Your task to perform on an android device: Do I have any events today? Image 0: 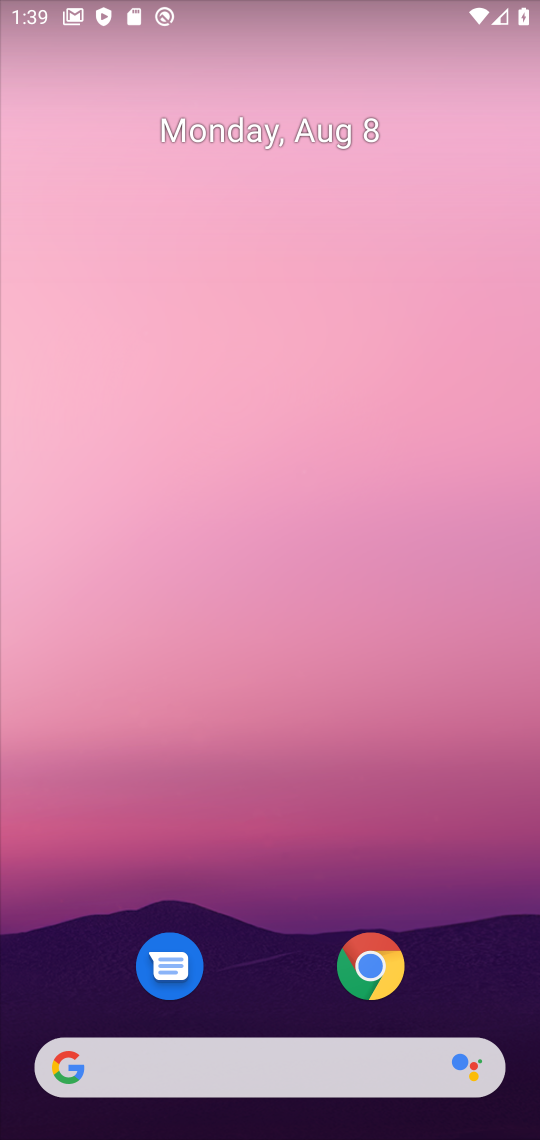
Step 0: drag from (278, 949) to (192, 307)
Your task to perform on an android device: Do I have any events today? Image 1: 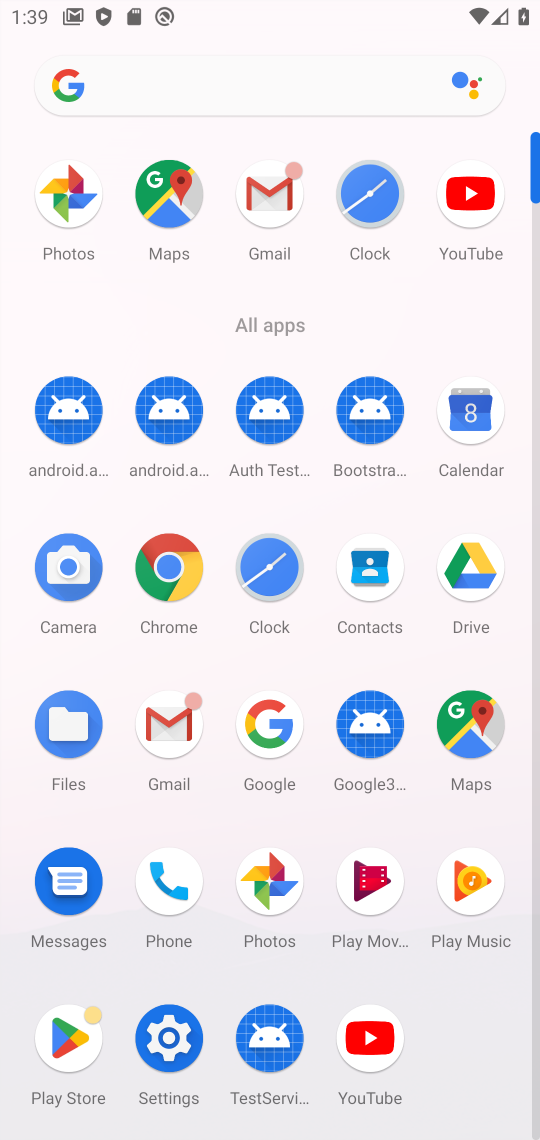
Step 1: click (466, 427)
Your task to perform on an android device: Do I have any events today? Image 2: 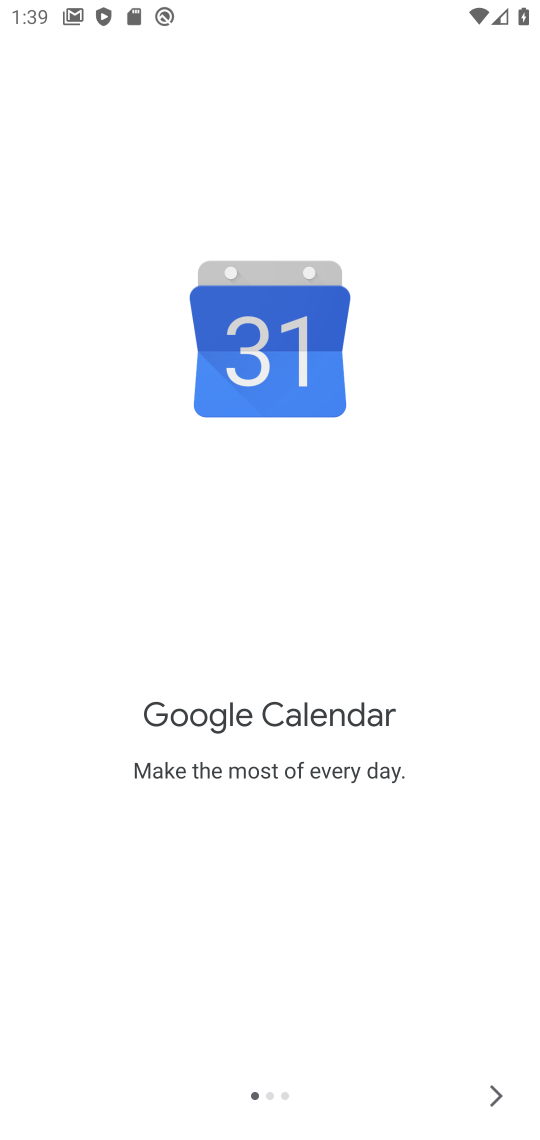
Step 2: click (499, 1087)
Your task to perform on an android device: Do I have any events today? Image 3: 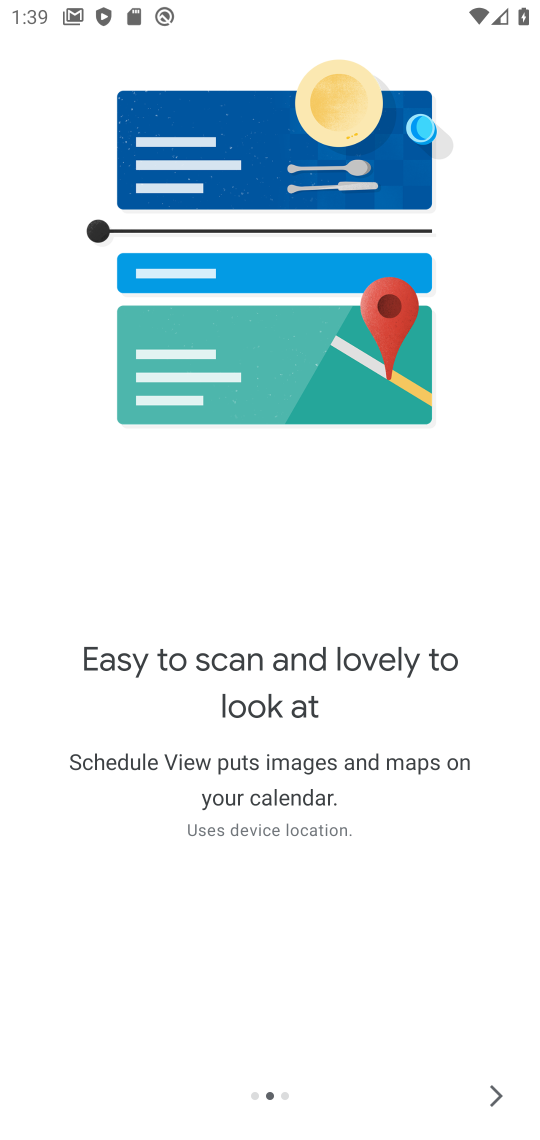
Step 3: click (499, 1087)
Your task to perform on an android device: Do I have any events today? Image 4: 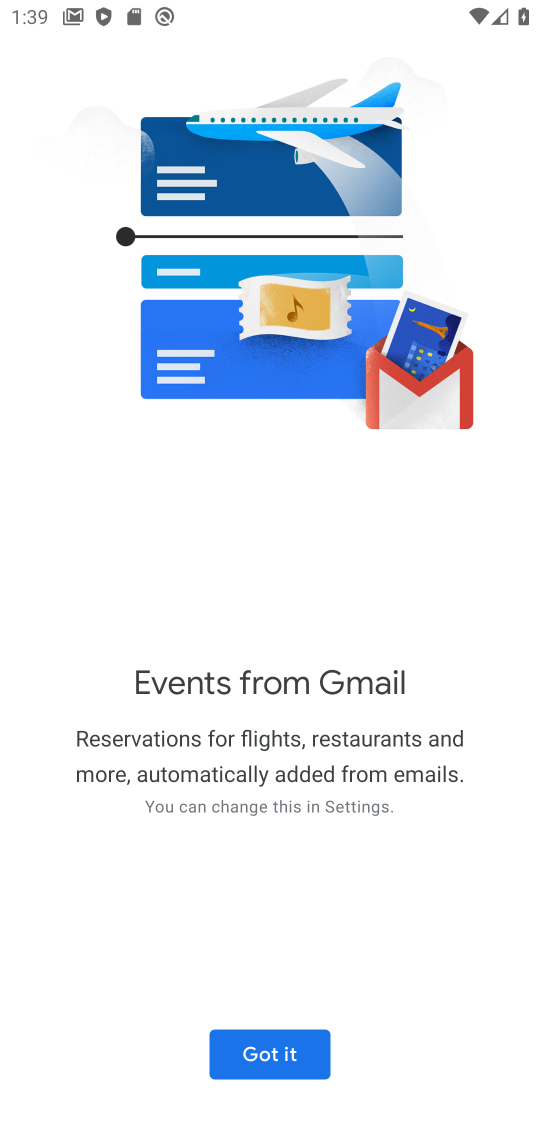
Step 4: click (296, 1054)
Your task to perform on an android device: Do I have any events today? Image 5: 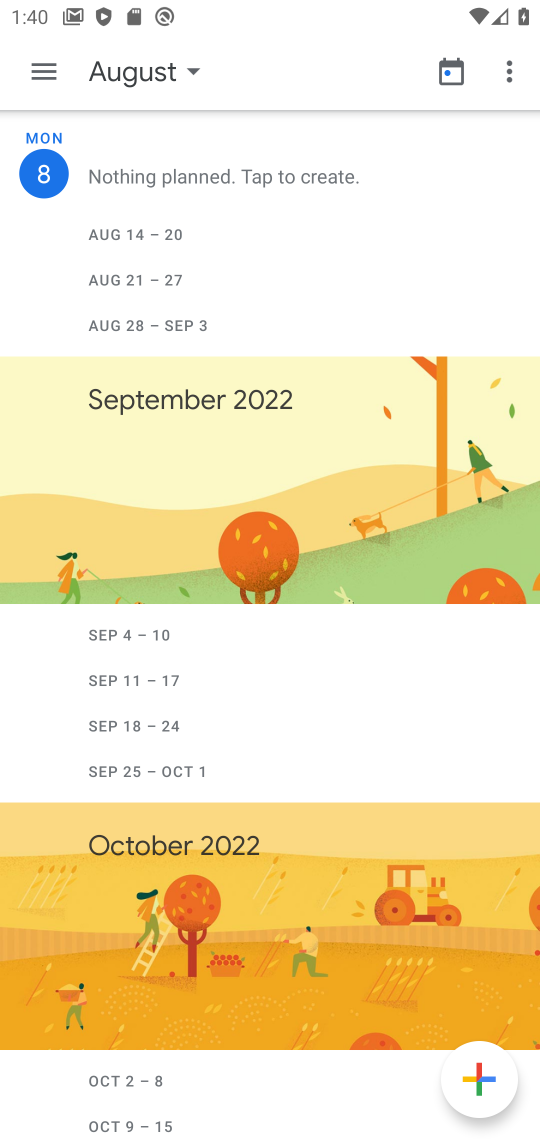
Step 5: click (58, 74)
Your task to perform on an android device: Do I have any events today? Image 6: 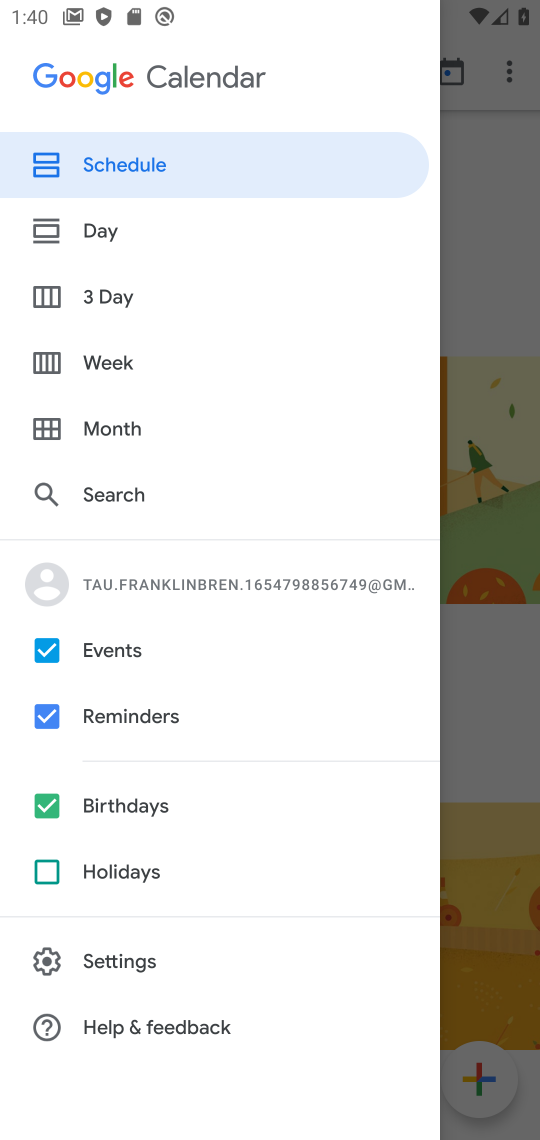
Step 6: click (111, 235)
Your task to perform on an android device: Do I have any events today? Image 7: 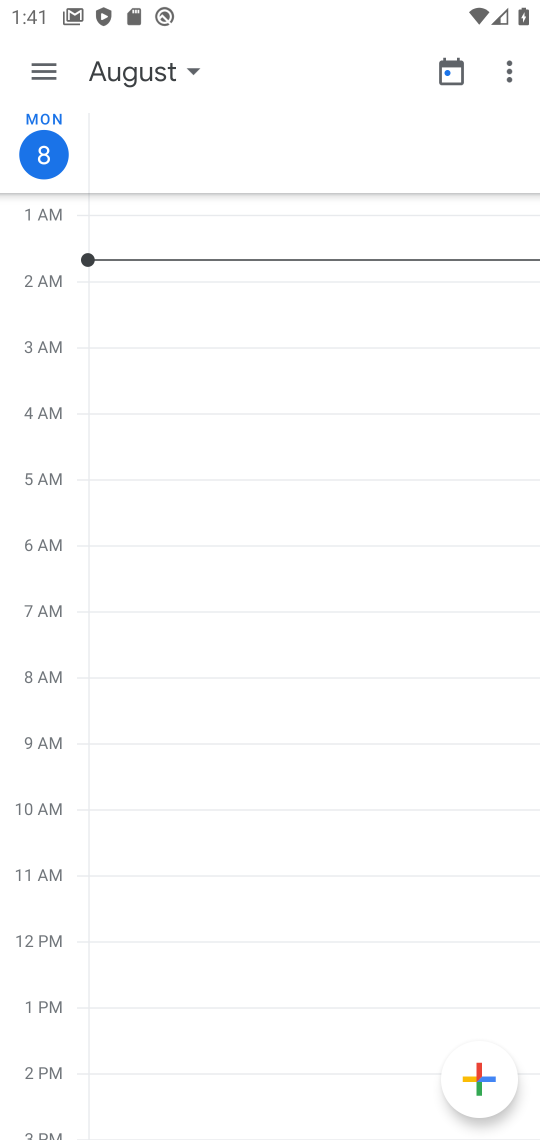
Step 7: task complete